Your task to perform on an android device: toggle location history Image 0: 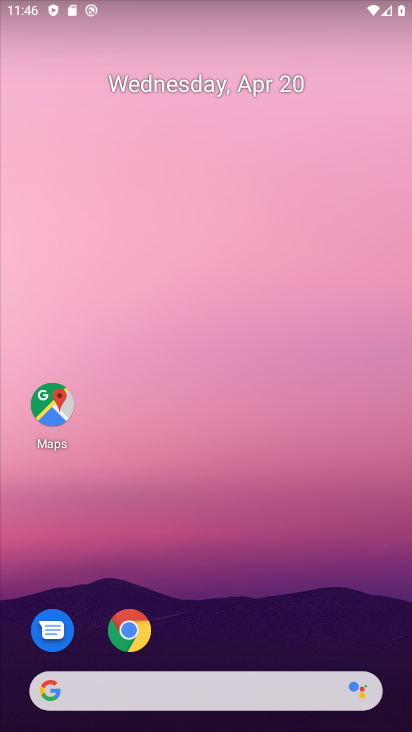
Step 0: drag from (208, 696) to (318, 145)
Your task to perform on an android device: toggle location history Image 1: 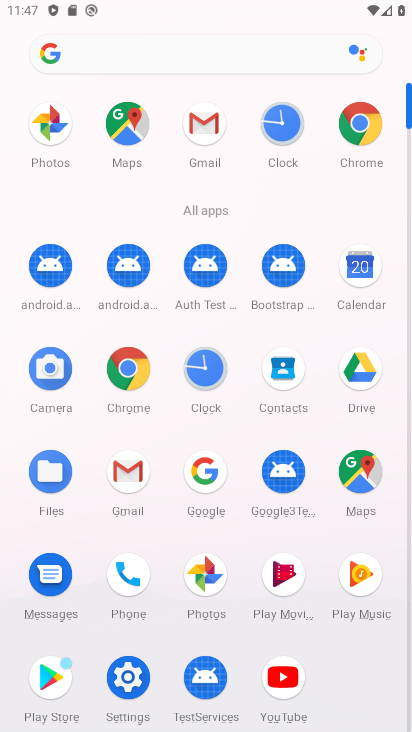
Step 1: click (124, 684)
Your task to perform on an android device: toggle location history Image 2: 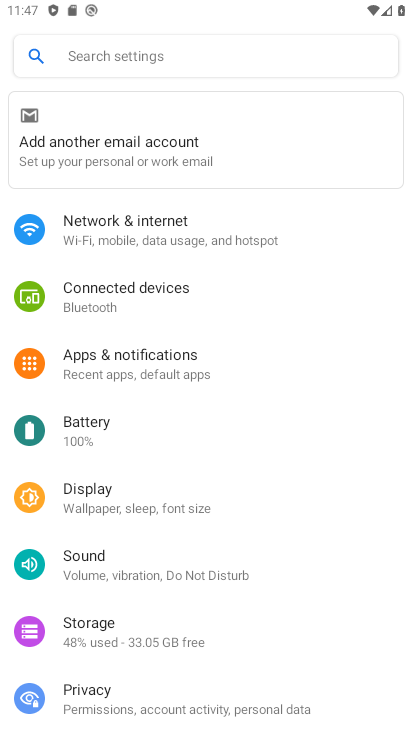
Step 2: drag from (171, 577) to (395, 122)
Your task to perform on an android device: toggle location history Image 3: 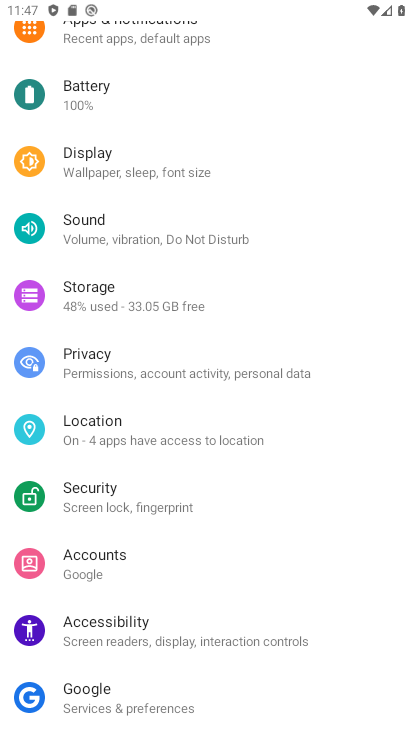
Step 3: click (105, 427)
Your task to perform on an android device: toggle location history Image 4: 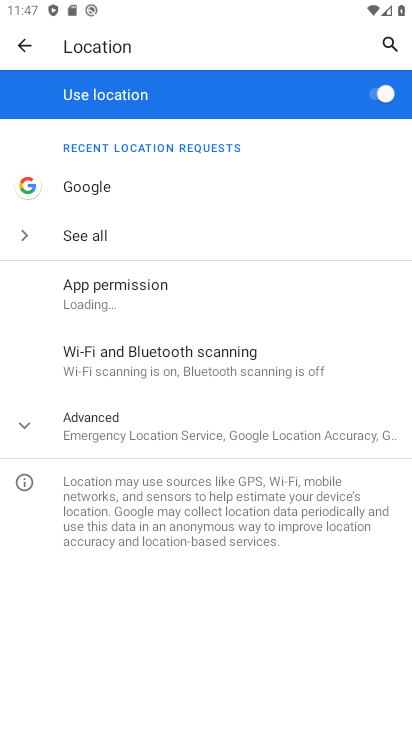
Step 4: click (105, 420)
Your task to perform on an android device: toggle location history Image 5: 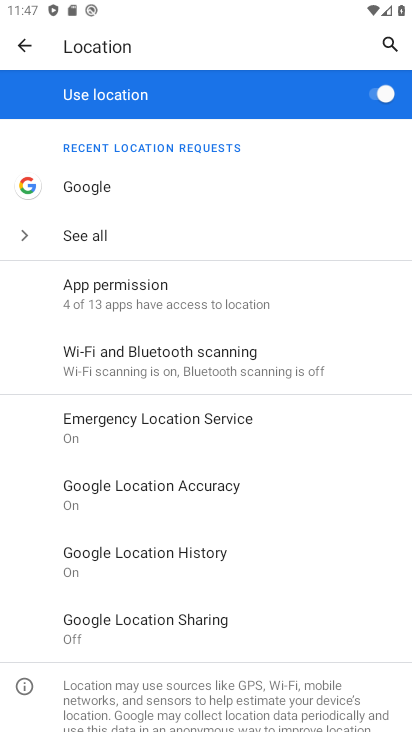
Step 5: click (160, 559)
Your task to perform on an android device: toggle location history Image 6: 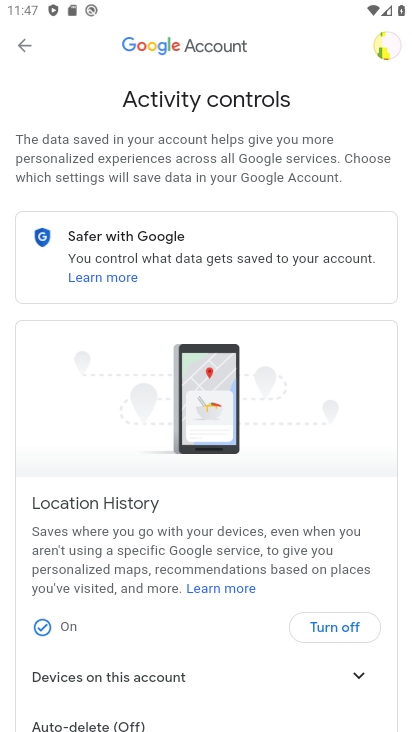
Step 6: click (323, 627)
Your task to perform on an android device: toggle location history Image 7: 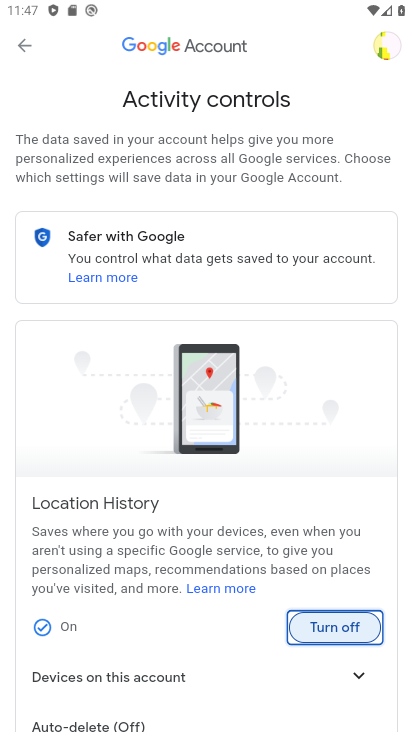
Step 7: click (334, 625)
Your task to perform on an android device: toggle location history Image 8: 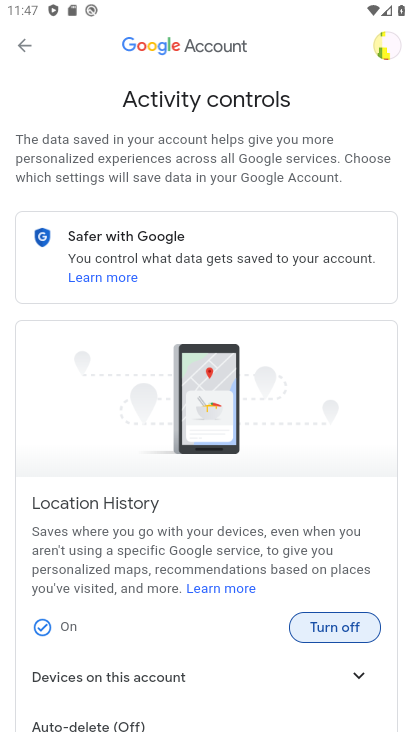
Step 8: click (334, 624)
Your task to perform on an android device: toggle location history Image 9: 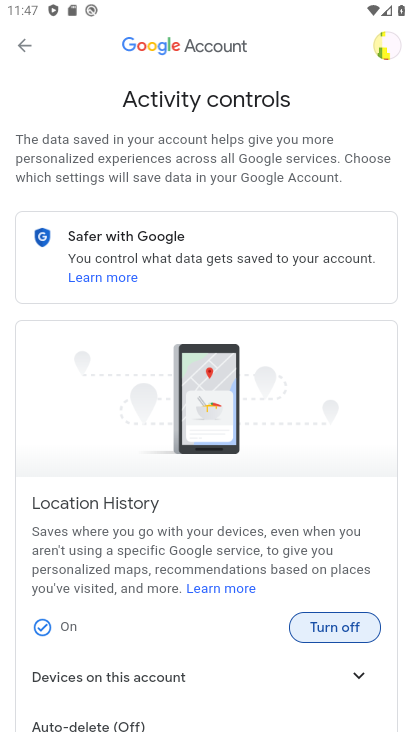
Step 9: click (331, 625)
Your task to perform on an android device: toggle location history Image 10: 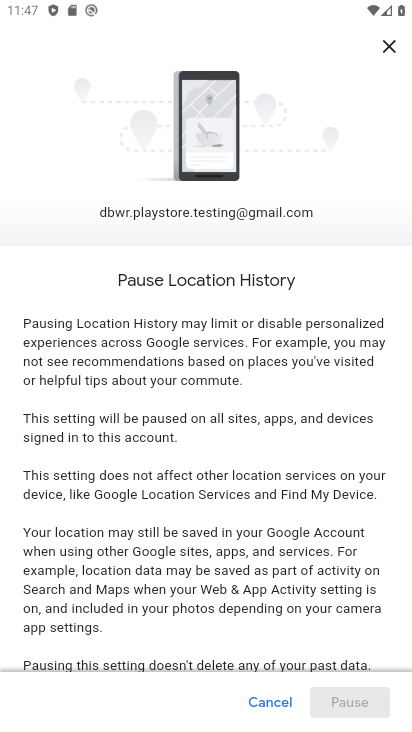
Step 10: drag from (231, 580) to (389, 49)
Your task to perform on an android device: toggle location history Image 11: 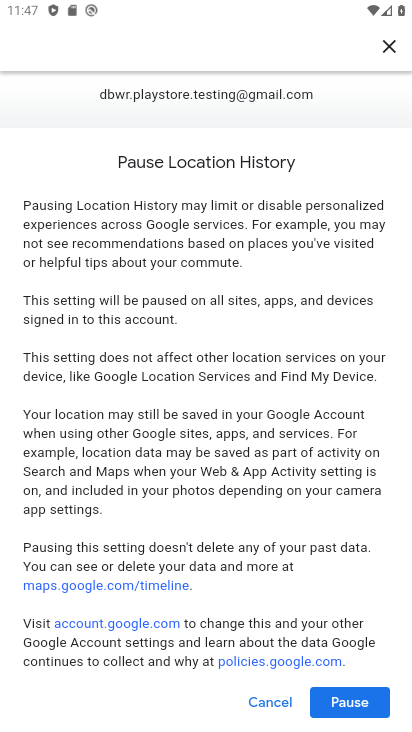
Step 11: drag from (227, 519) to (324, 185)
Your task to perform on an android device: toggle location history Image 12: 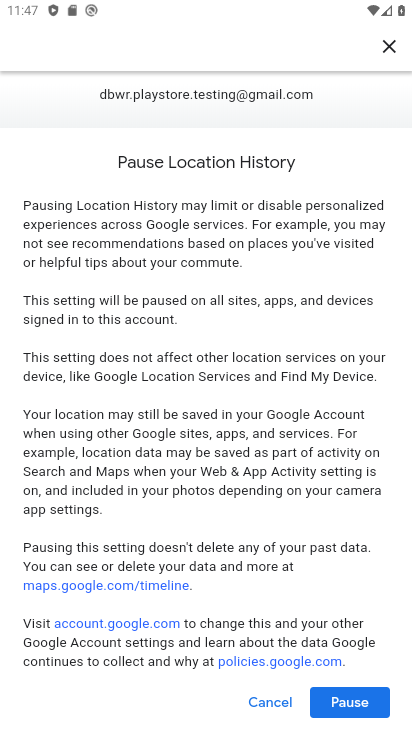
Step 12: click (336, 699)
Your task to perform on an android device: toggle location history Image 13: 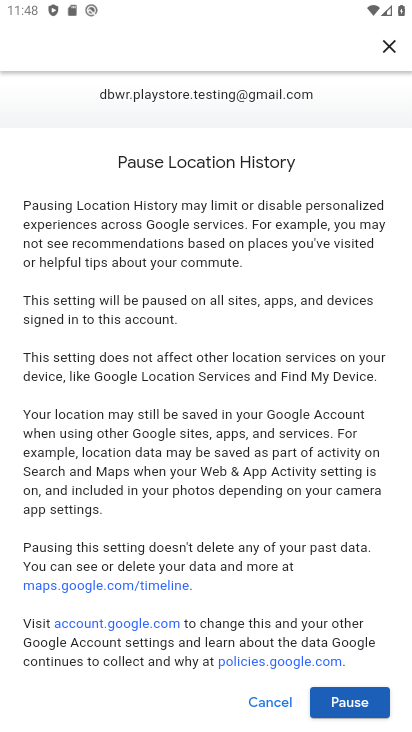
Step 13: click (345, 701)
Your task to perform on an android device: toggle location history Image 14: 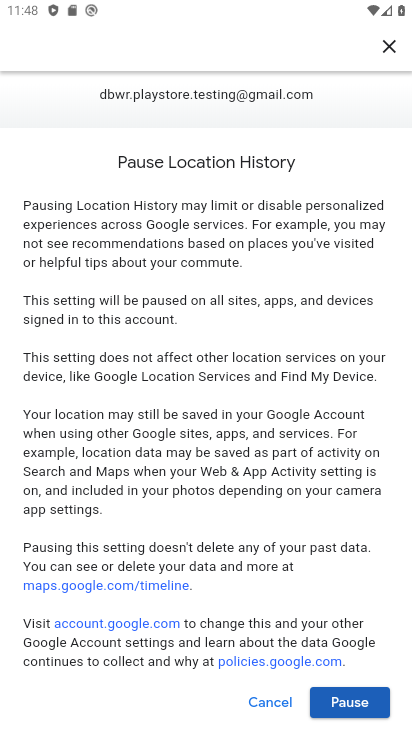
Step 14: click (362, 701)
Your task to perform on an android device: toggle location history Image 15: 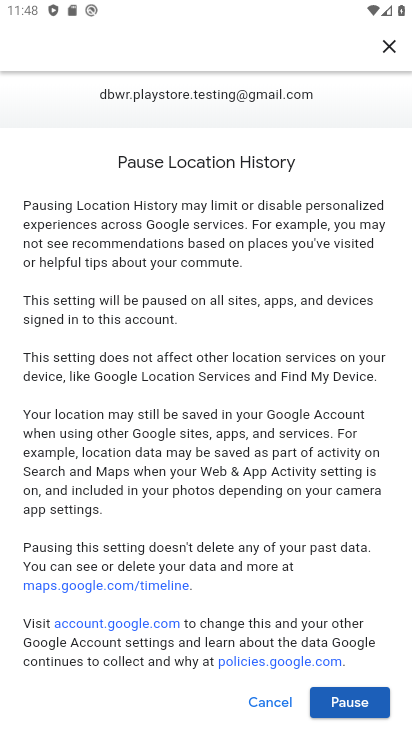
Step 15: click (362, 701)
Your task to perform on an android device: toggle location history Image 16: 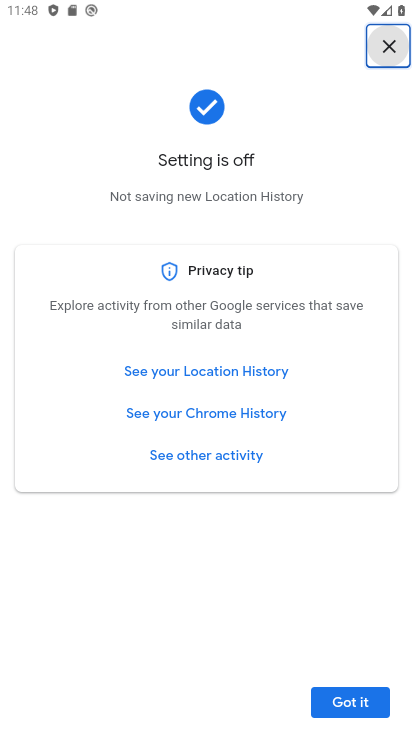
Step 16: click (359, 704)
Your task to perform on an android device: toggle location history Image 17: 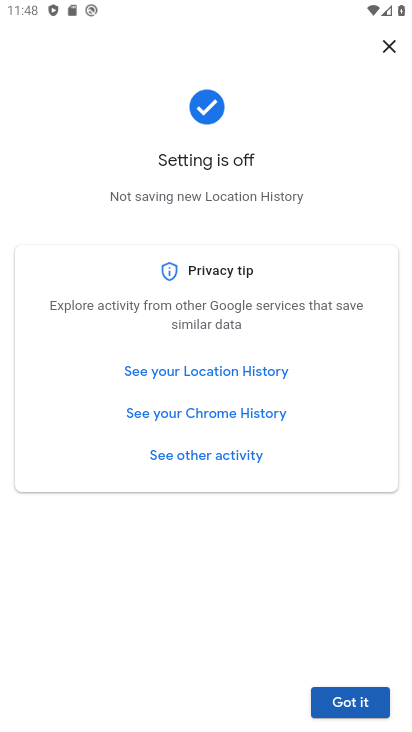
Step 17: task complete